Your task to perform on an android device: star an email in the gmail app Image 0: 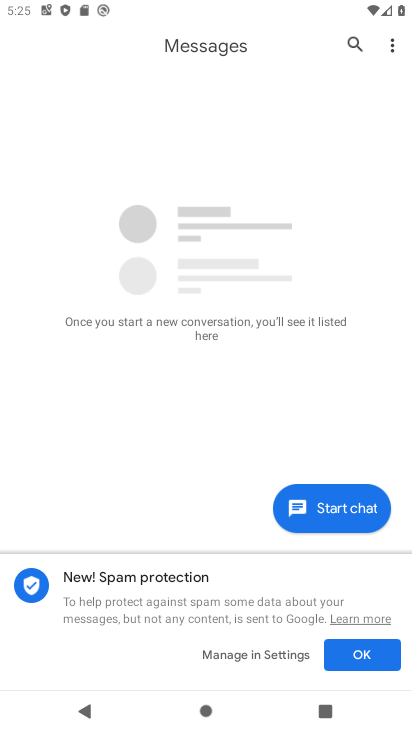
Step 0: press home button
Your task to perform on an android device: star an email in the gmail app Image 1: 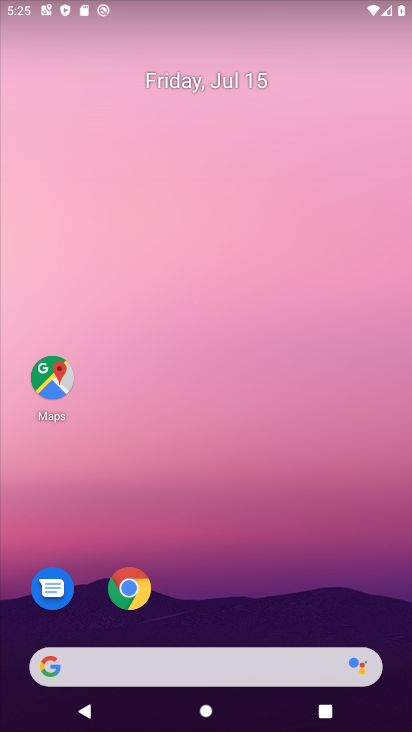
Step 1: drag from (282, 696) to (293, 57)
Your task to perform on an android device: star an email in the gmail app Image 2: 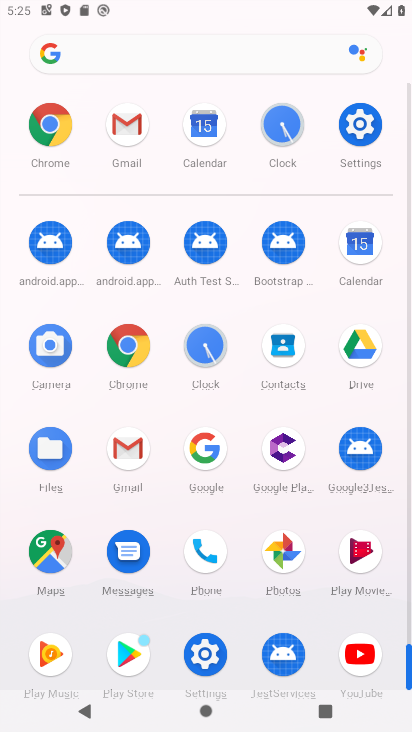
Step 2: click (132, 438)
Your task to perform on an android device: star an email in the gmail app Image 3: 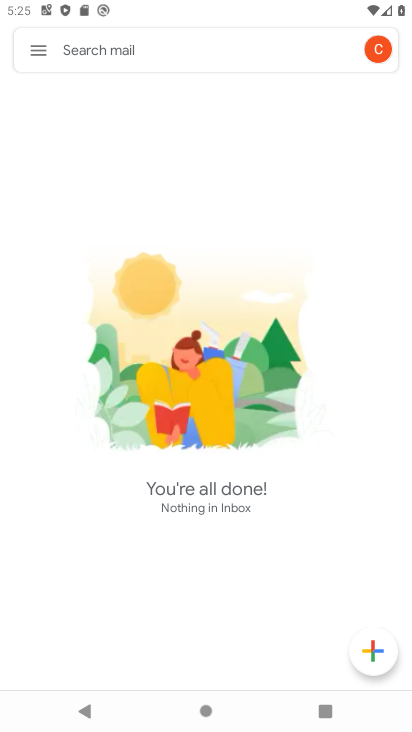
Step 3: click (35, 53)
Your task to perform on an android device: star an email in the gmail app Image 4: 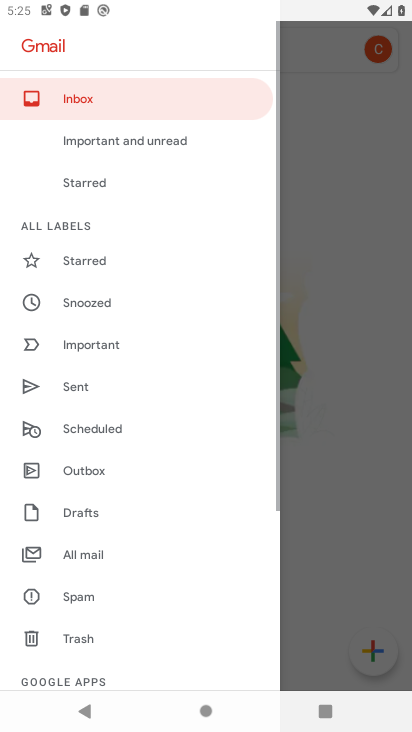
Step 4: click (103, 181)
Your task to perform on an android device: star an email in the gmail app Image 5: 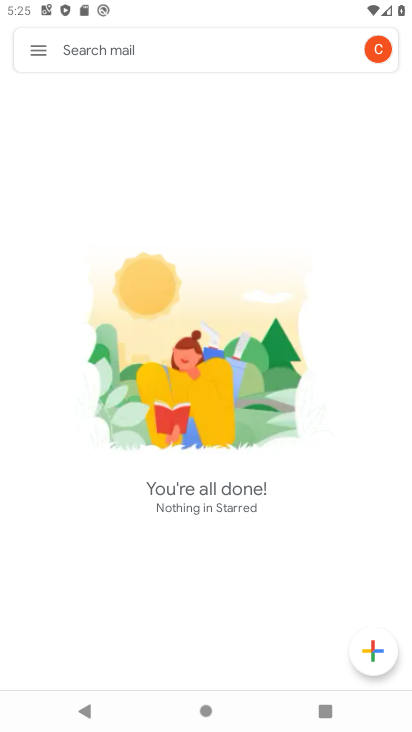
Step 5: task complete